Your task to perform on an android device: Clear the cart on ebay.com. Add "alienware aurora" to the cart on ebay.com Image 0: 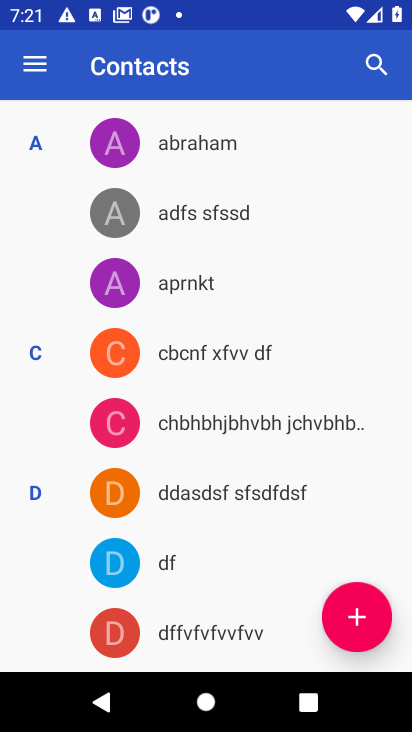
Step 0: press home button
Your task to perform on an android device: Clear the cart on ebay.com. Add "alienware aurora" to the cart on ebay.com Image 1: 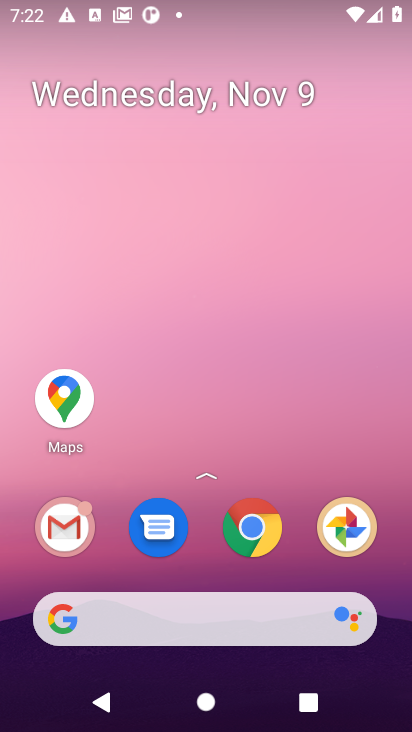
Step 1: click (264, 522)
Your task to perform on an android device: Clear the cart on ebay.com. Add "alienware aurora" to the cart on ebay.com Image 2: 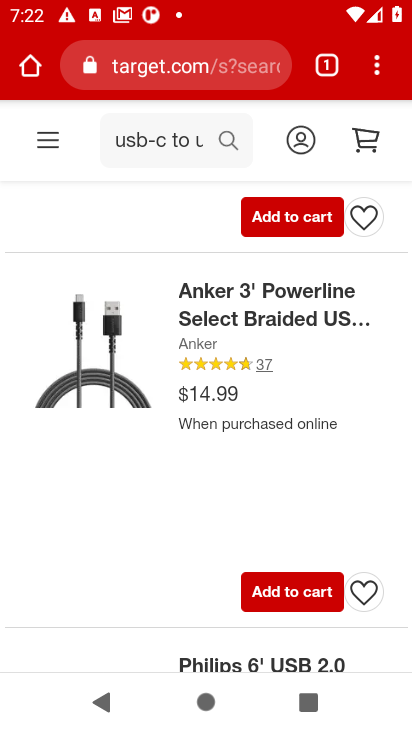
Step 2: click (183, 73)
Your task to perform on an android device: Clear the cart on ebay.com. Add "alienware aurora" to the cart on ebay.com Image 3: 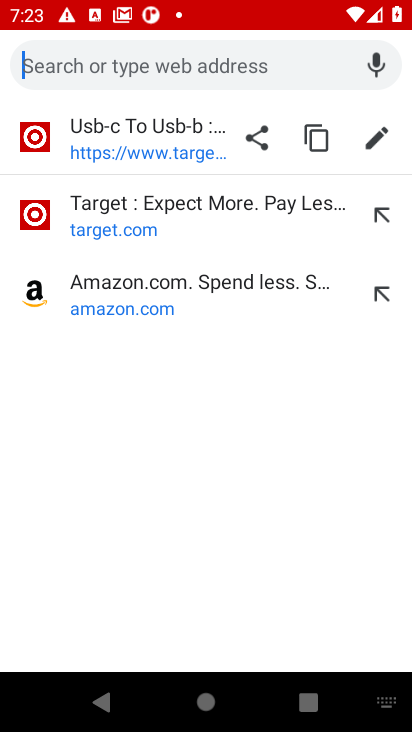
Step 3: type "ebay.com"
Your task to perform on an android device: Clear the cart on ebay.com. Add "alienware aurora" to the cart on ebay.com Image 4: 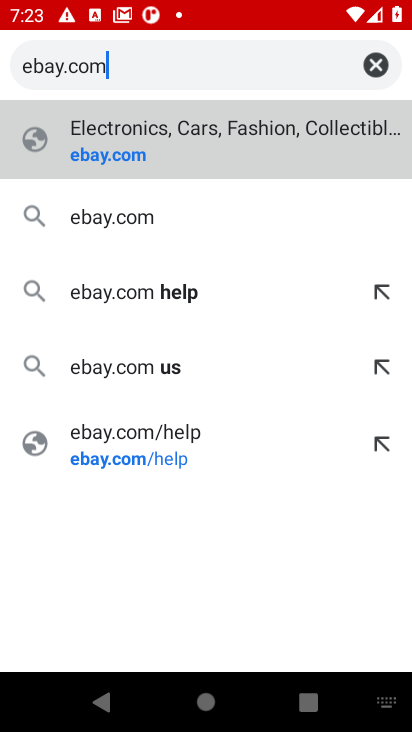
Step 4: click (94, 158)
Your task to perform on an android device: Clear the cart on ebay.com. Add "alienware aurora" to the cart on ebay.com Image 5: 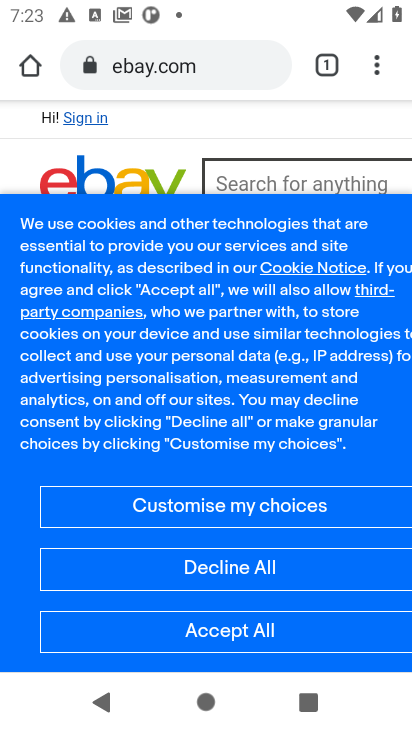
Step 5: click (223, 633)
Your task to perform on an android device: Clear the cart on ebay.com. Add "alienware aurora" to the cart on ebay.com Image 6: 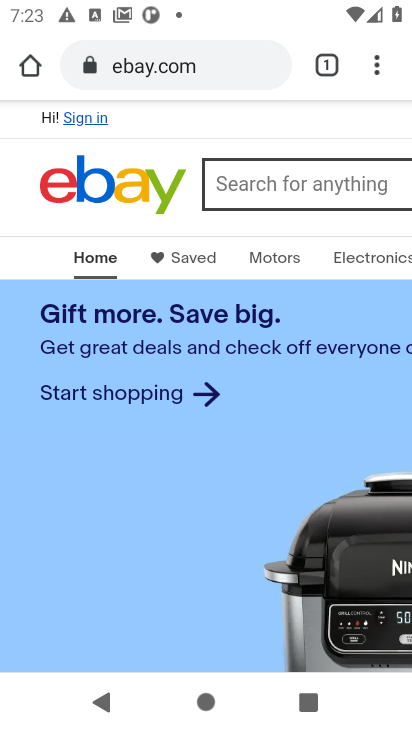
Step 6: drag from (357, 144) to (34, 145)
Your task to perform on an android device: Clear the cart on ebay.com. Add "alienware aurora" to the cart on ebay.com Image 7: 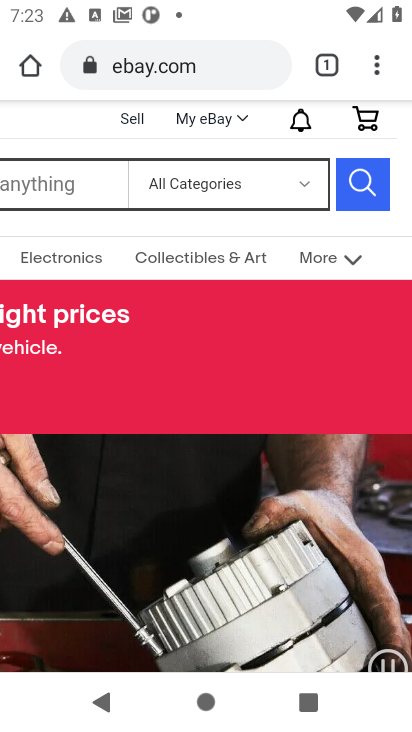
Step 7: click (362, 123)
Your task to perform on an android device: Clear the cart on ebay.com. Add "alienware aurora" to the cart on ebay.com Image 8: 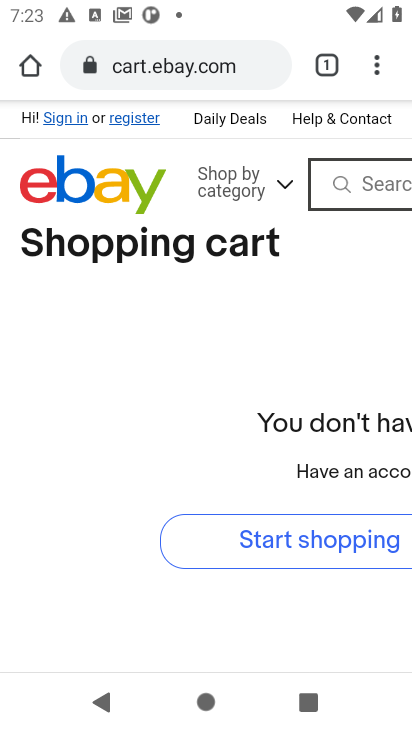
Step 8: drag from (221, 472) to (42, 459)
Your task to perform on an android device: Clear the cart on ebay.com. Add "alienware aurora" to the cart on ebay.com Image 9: 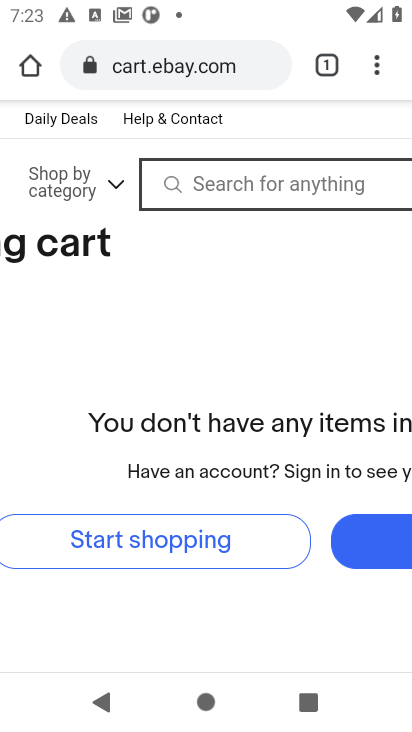
Step 9: click (230, 184)
Your task to perform on an android device: Clear the cart on ebay.com. Add "alienware aurora" to the cart on ebay.com Image 10: 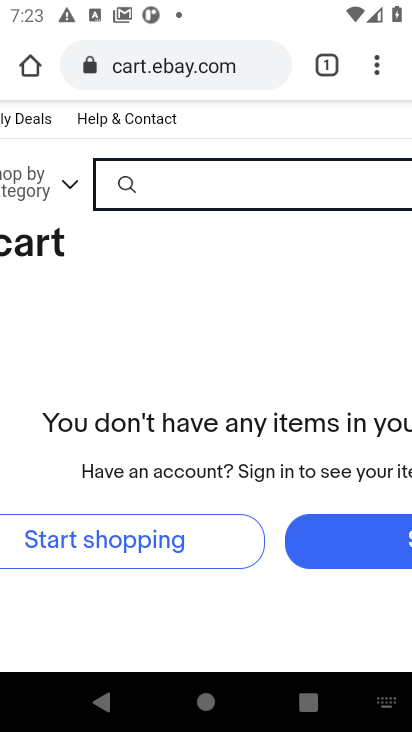
Step 10: type "alienware aurora"
Your task to perform on an android device: Clear the cart on ebay.com. Add "alienware aurora" to the cart on ebay.com Image 11: 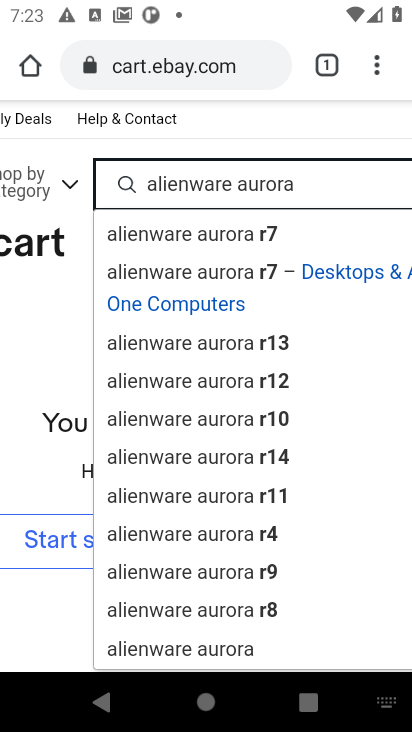
Step 11: click (185, 644)
Your task to perform on an android device: Clear the cart on ebay.com. Add "alienware aurora" to the cart on ebay.com Image 12: 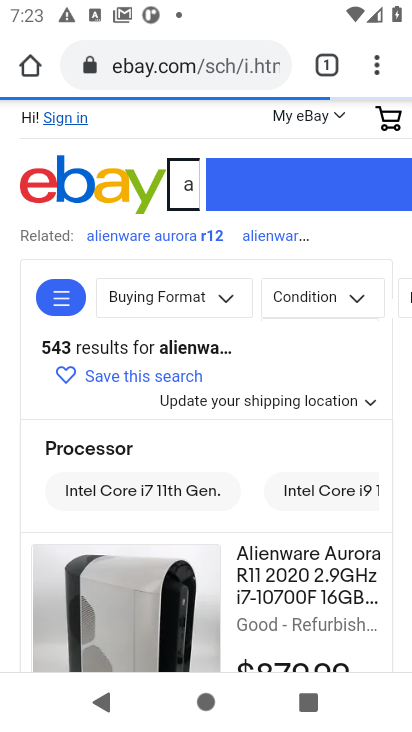
Step 12: drag from (171, 610) to (176, 368)
Your task to perform on an android device: Clear the cart on ebay.com. Add "alienware aurora" to the cart on ebay.com Image 13: 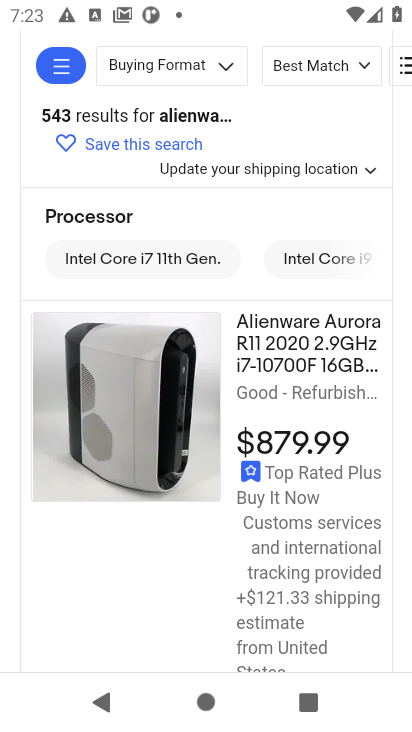
Step 13: click (180, 549)
Your task to perform on an android device: Clear the cart on ebay.com. Add "alienware aurora" to the cart on ebay.com Image 14: 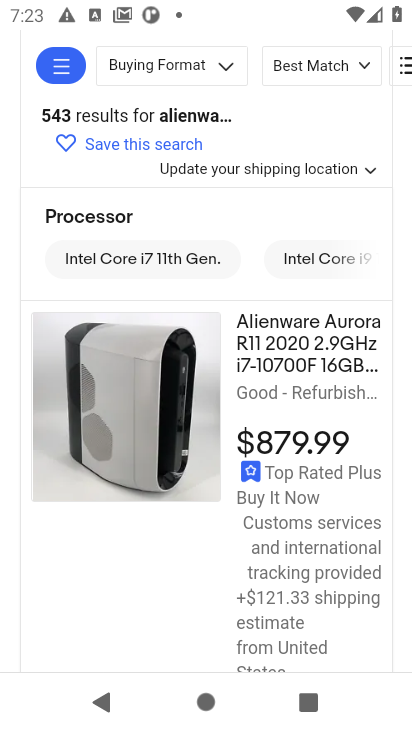
Step 14: click (165, 479)
Your task to perform on an android device: Clear the cart on ebay.com. Add "alienware aurora" to the cart on ebay.com Image 15: 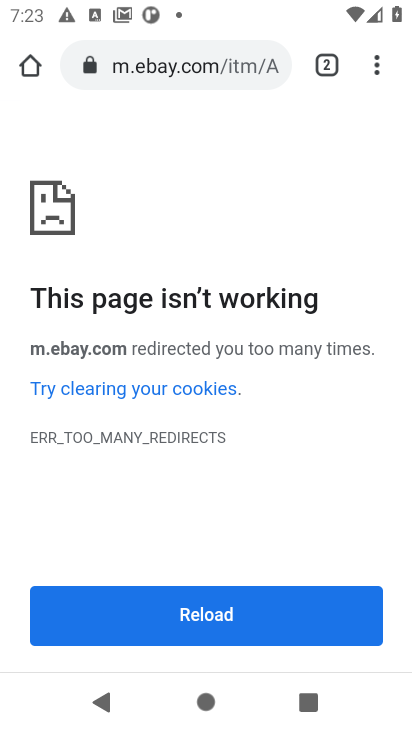
Step 15: task complete